Your task to perform on an android device: toggle sleep mode Image 0: 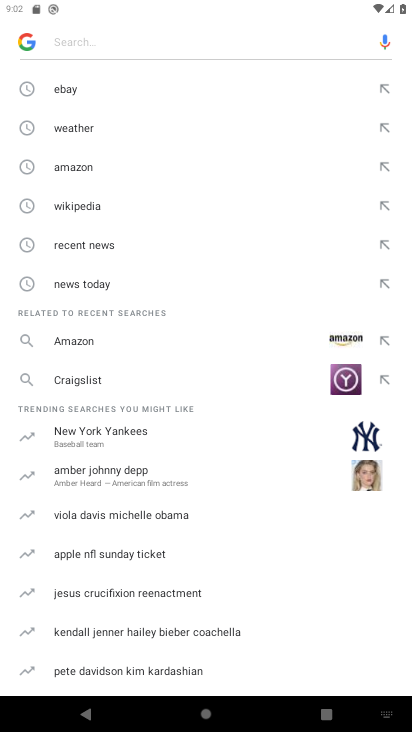
Step 0: press home button
Your task to perform on an android device: toggle sleep mode Image 1: 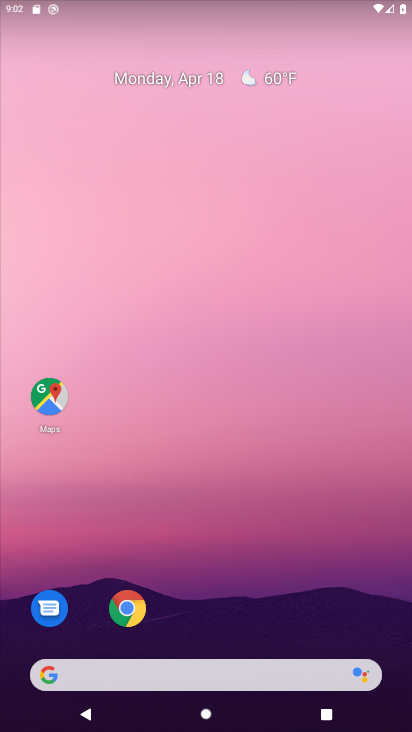
Step 1: drag from (308, 639) to (284, 208)
Your task to perform on an android device: toggle sleep mode Image 2: 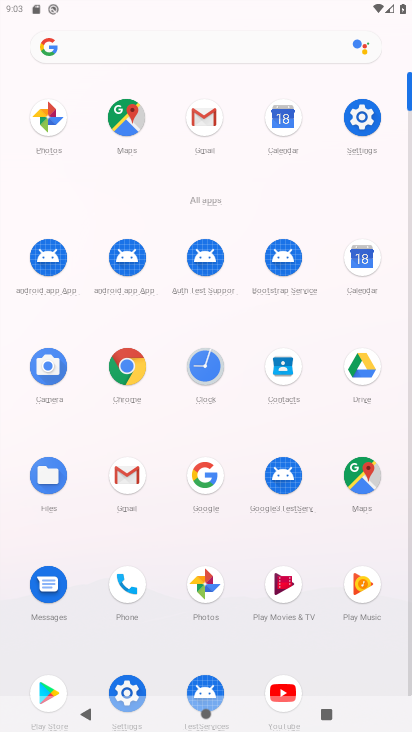
Step 2: click (356, 124)
Your task to perform on an android device: toggle sleep mode Image 3: 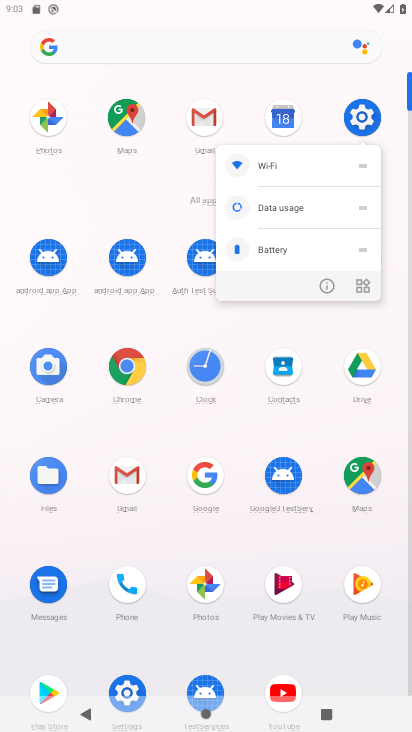
Step 3: click (370, 124)
Your task to perform on an android device: toggle sleep mode Image 4: 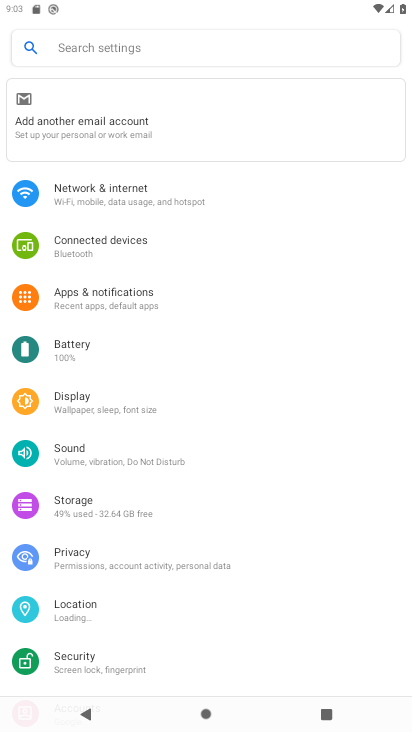
Step 4: click (161, 40)
Your task to perform on an android device: toggle sleep mode Image 5: 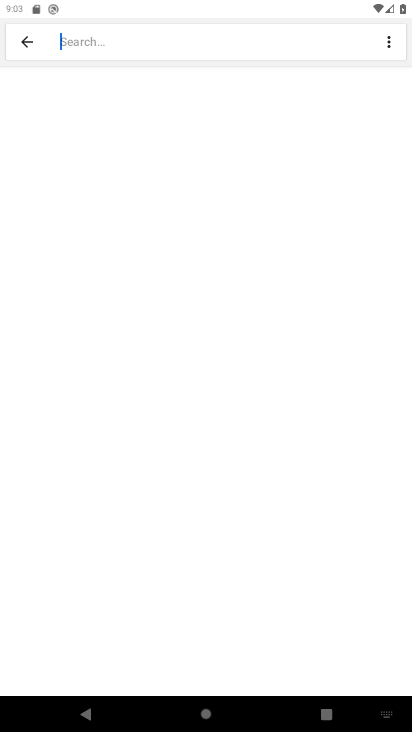
Step 5: type "sleep mode"
Your task to perform on an android device: toggle sleep mode Image 6: 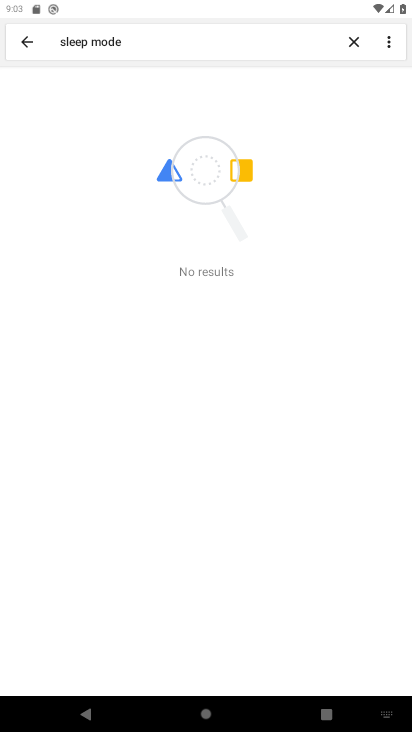
Step 6: task complete